Your task to perform on an android device: install app "Venmo" Image 0: 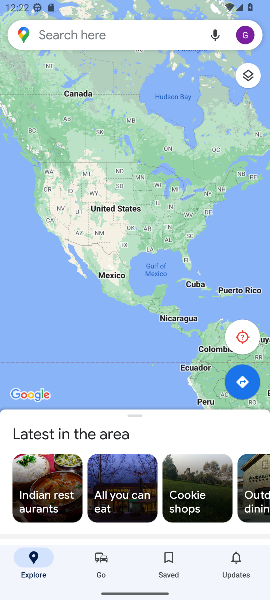
Step 0: press home button
Your task to perform on an android device: install app "Venmo" Image 1: 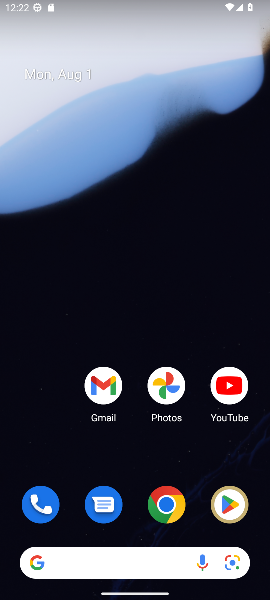
Step 1: drag from (178, 550) to (170, 95)
Your task to perform on an android device: install app "Venmo" Image 2: 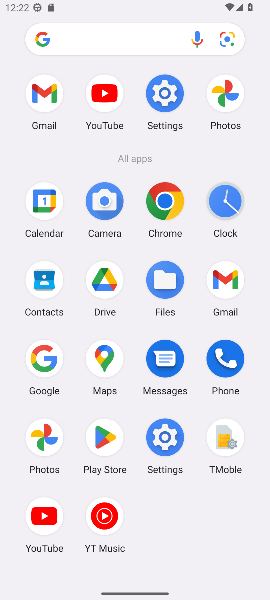
Step 2: click (104, 430)
Your task to perform on an android device: install app "Venmo" Image 3: 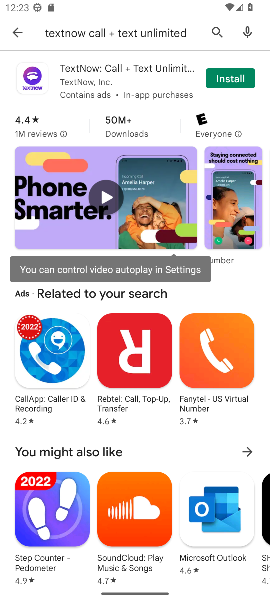
Step 3: click (212, 24)
Your task to perform on an android device: install app "Venmo" Image 4: 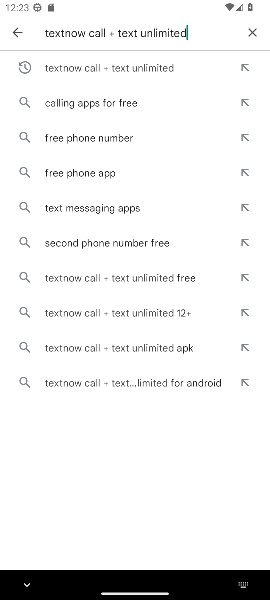
Step 4: click (250, 26)
Your task to perform on an android device: install app "Venmo" Image 5: 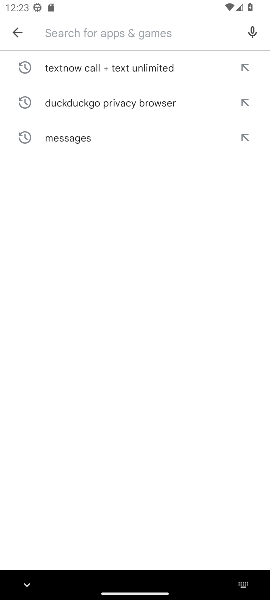
Step 5: type "venmo"
Your task to perform on an android device: install app "Venmo" Image 6: 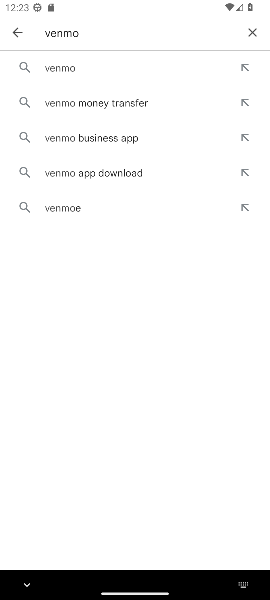
Step 6: click (114, 60)
Your task to perform on an android device: install app "Venmo" Image 7: 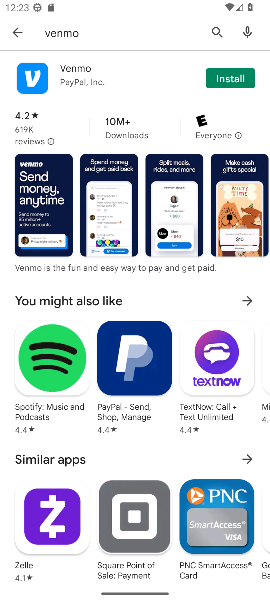
Step 7: click (220, 80)
Your task to perform on an android device: install app "Venmo" Image 8: 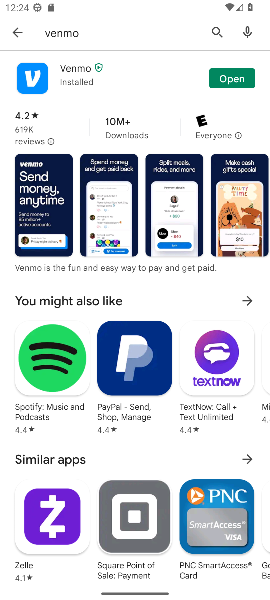
Step 8: task complete